Your task to perform on an android device: Look up the new steph curry shoes Image 0: 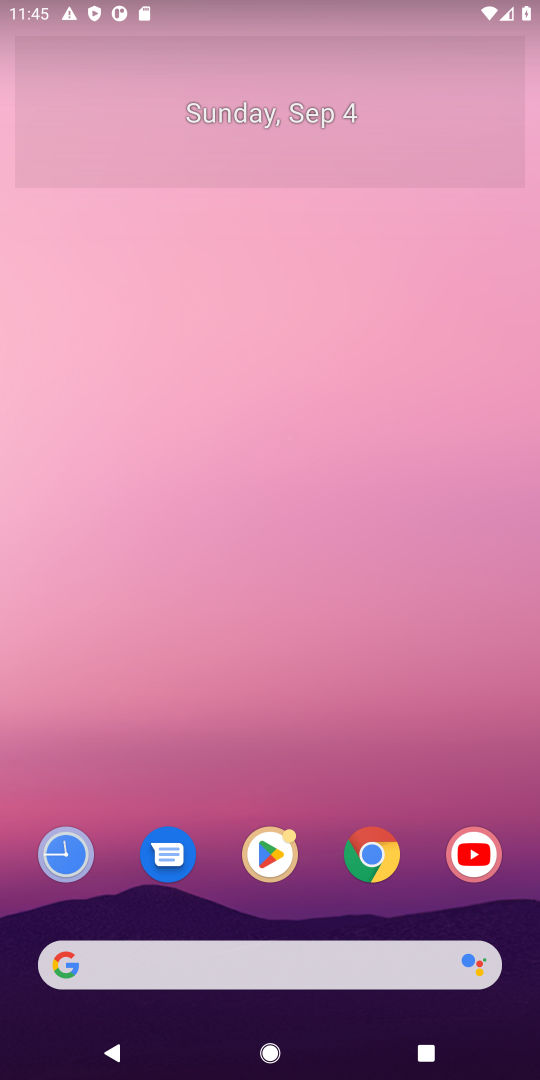
Step 0: press home button
Your task to perform on an android device: Look up the new steph curry shoes Image 1: 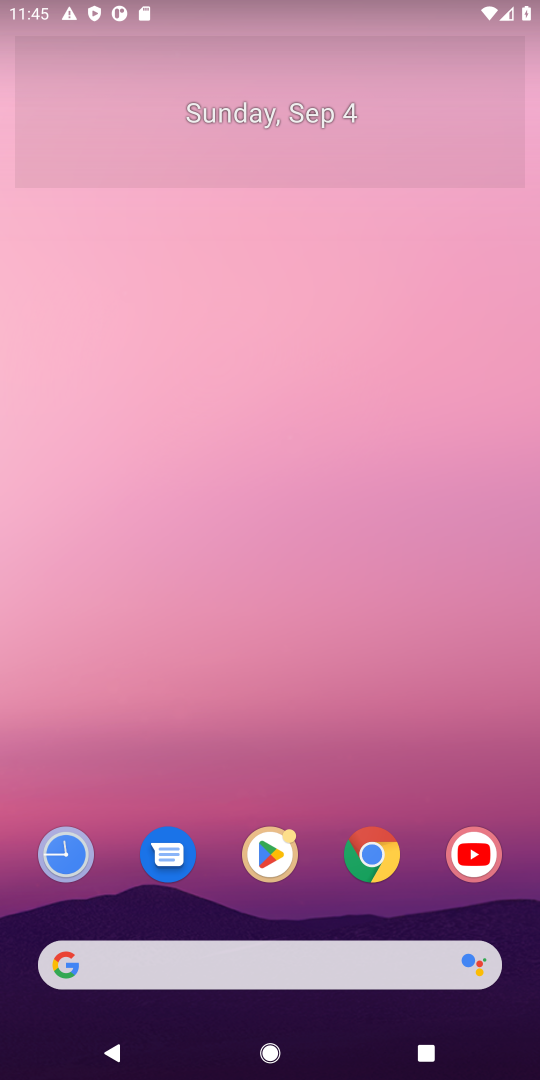
Step 1: click (339, 955)
Your task to perform on an android device: Look up the new steph curry shoes Image 2: 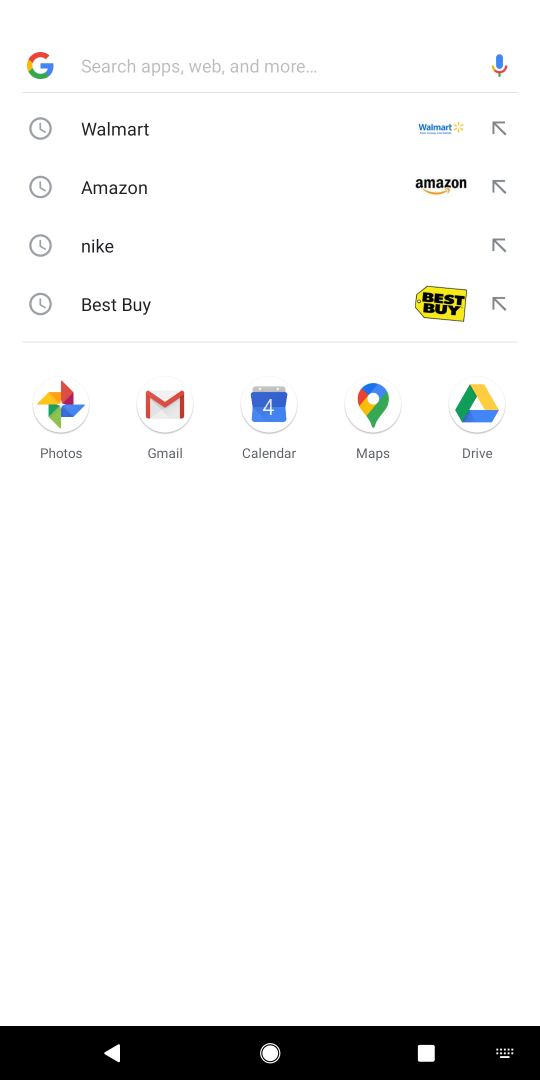
Step 2: type "new steph curry shoes"
Your task to perform on an android device: Look up the new steph curry shoes Image 3: 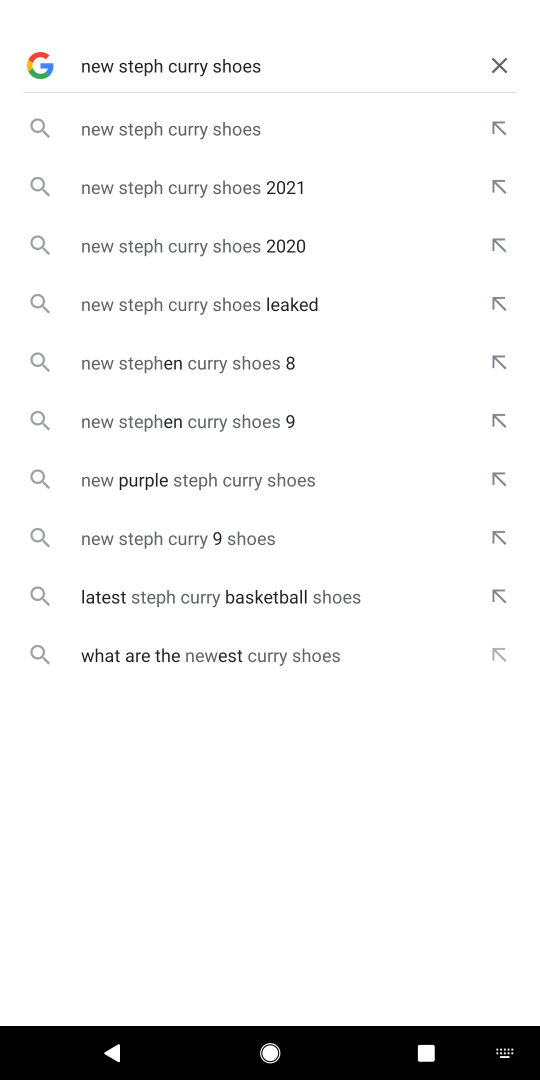
Step 3: press enter
Your task to perform on an android device: Look up the new steph curry shoes Image 4: 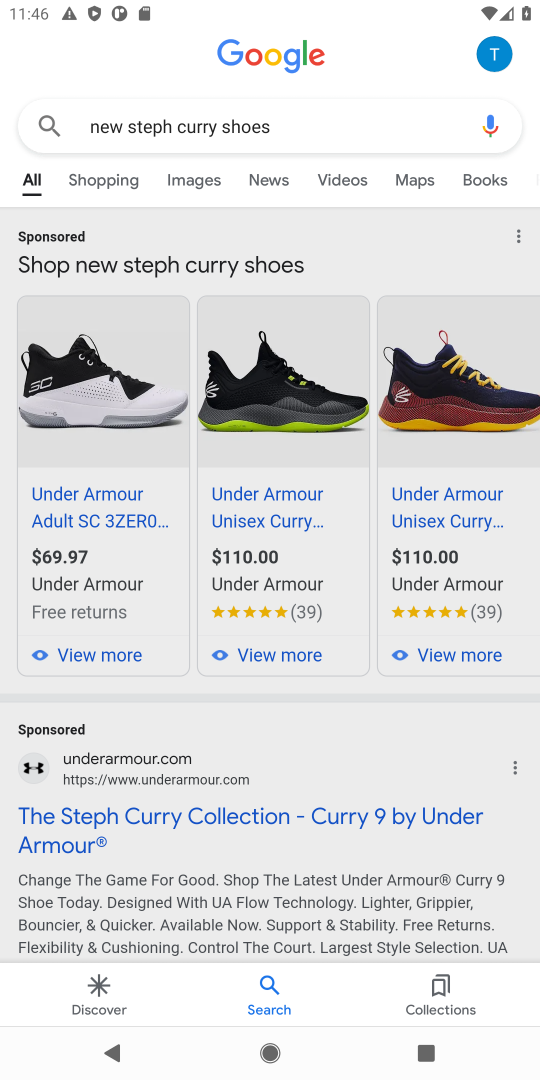
Step 4: task complete